Your task to perform on an android device: turn on airplane mode Image 0: 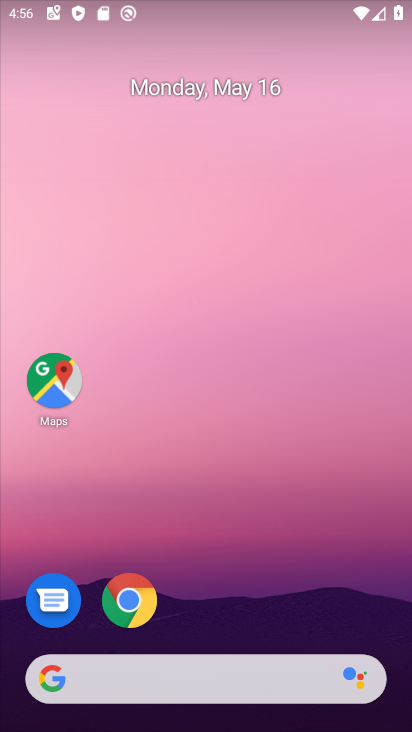
Step 0: drag from (212, 655) to (274, 22)
Your task to perform on an android device: turn on airplane mode Image 1: 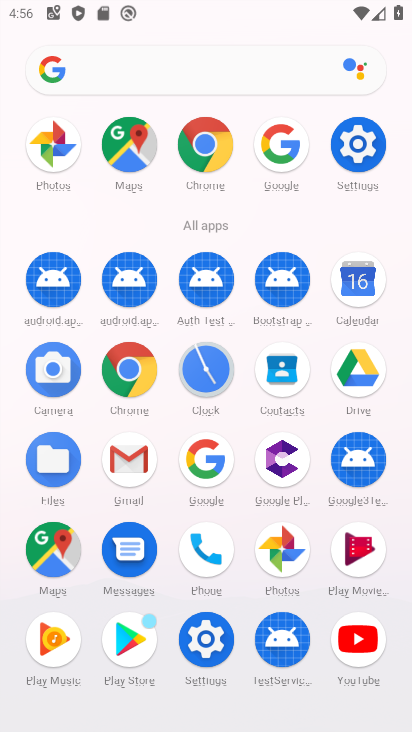
Step 1: click (365, 153)
Your task to perform on an android device: turn on airplane mode Image 2: 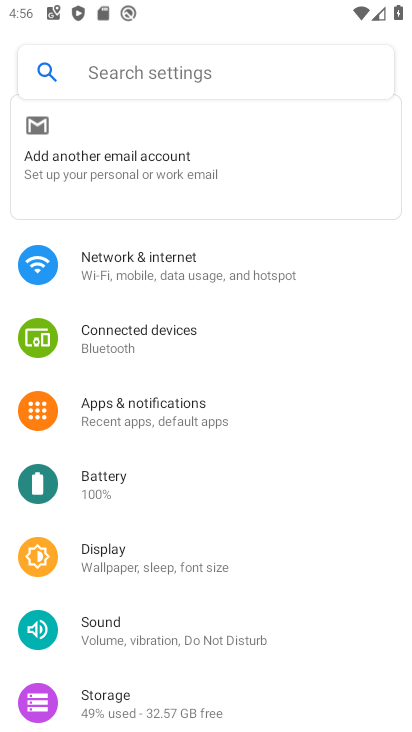
Step 2: click (178, 278)
Your task to perform on an android device: turn on airplane mode Image 3: 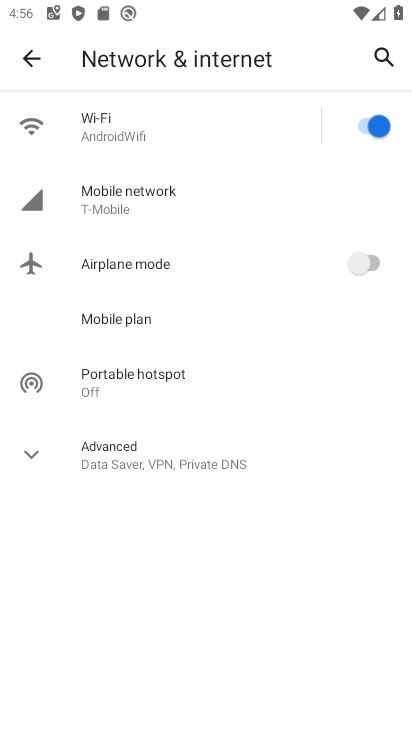
Step 3: click (368, 255)
Your task to perform on an android device: turn on airplane mode Image 4: 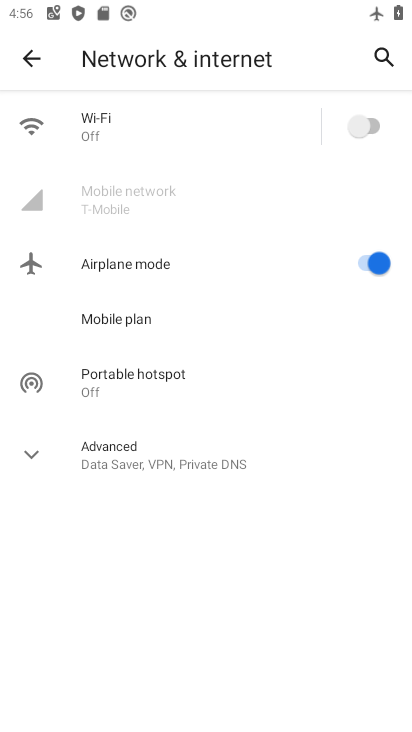
Step 4: task complete